Your task to perform on an android device: turn on sleep mode Image 0: 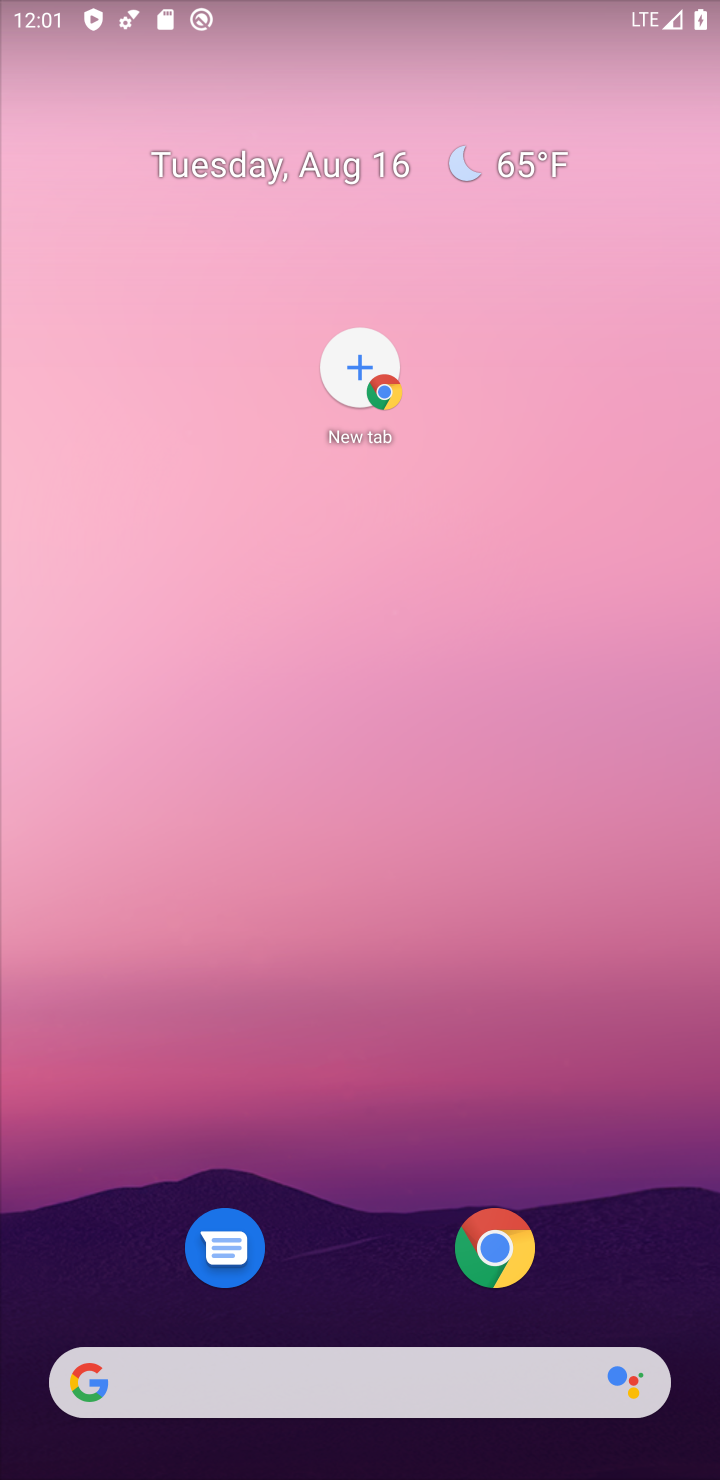
Step 0: drag from (403, 1329) to (308, 107)
Your task to perform on an android device: turn on sleep mode Image 1: 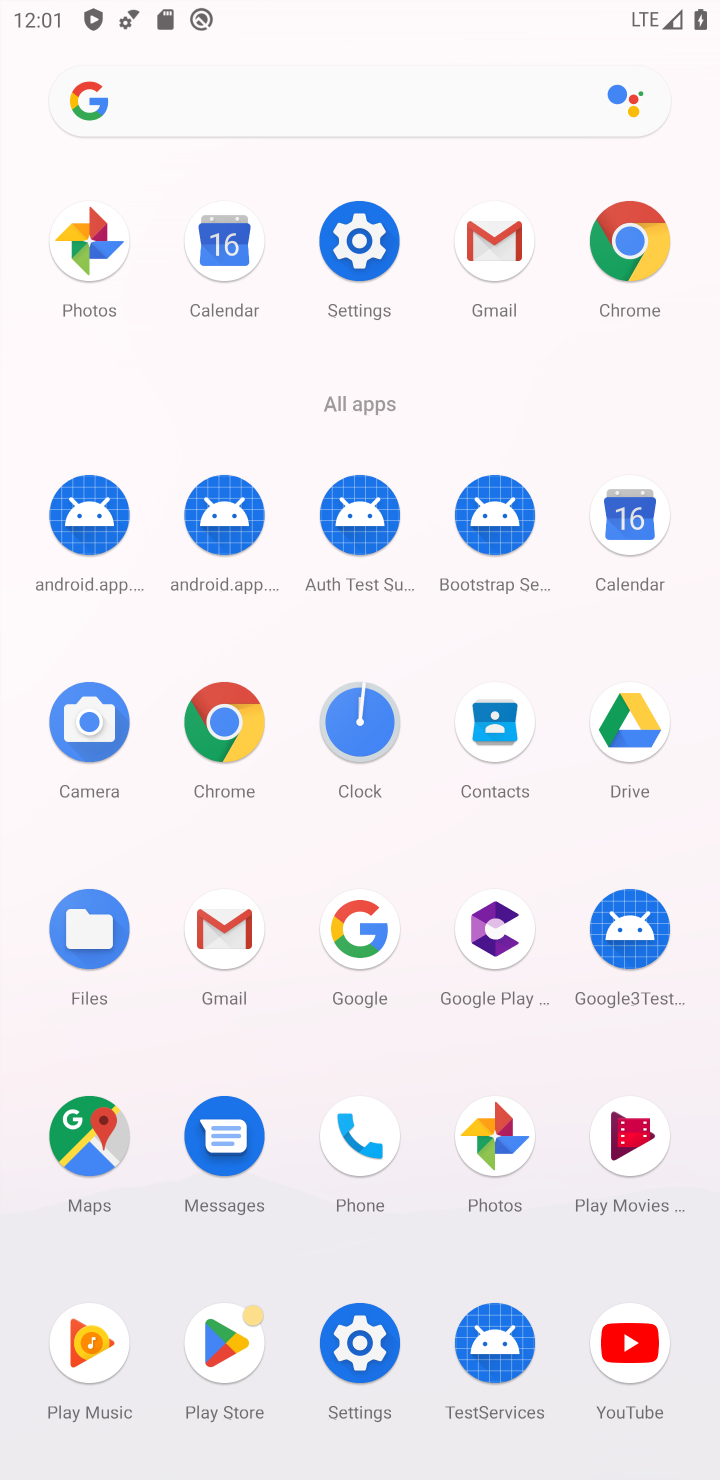
Step 1: click (365, 222)
Your task to perform on an android device: turn on sleep mode Image 2: 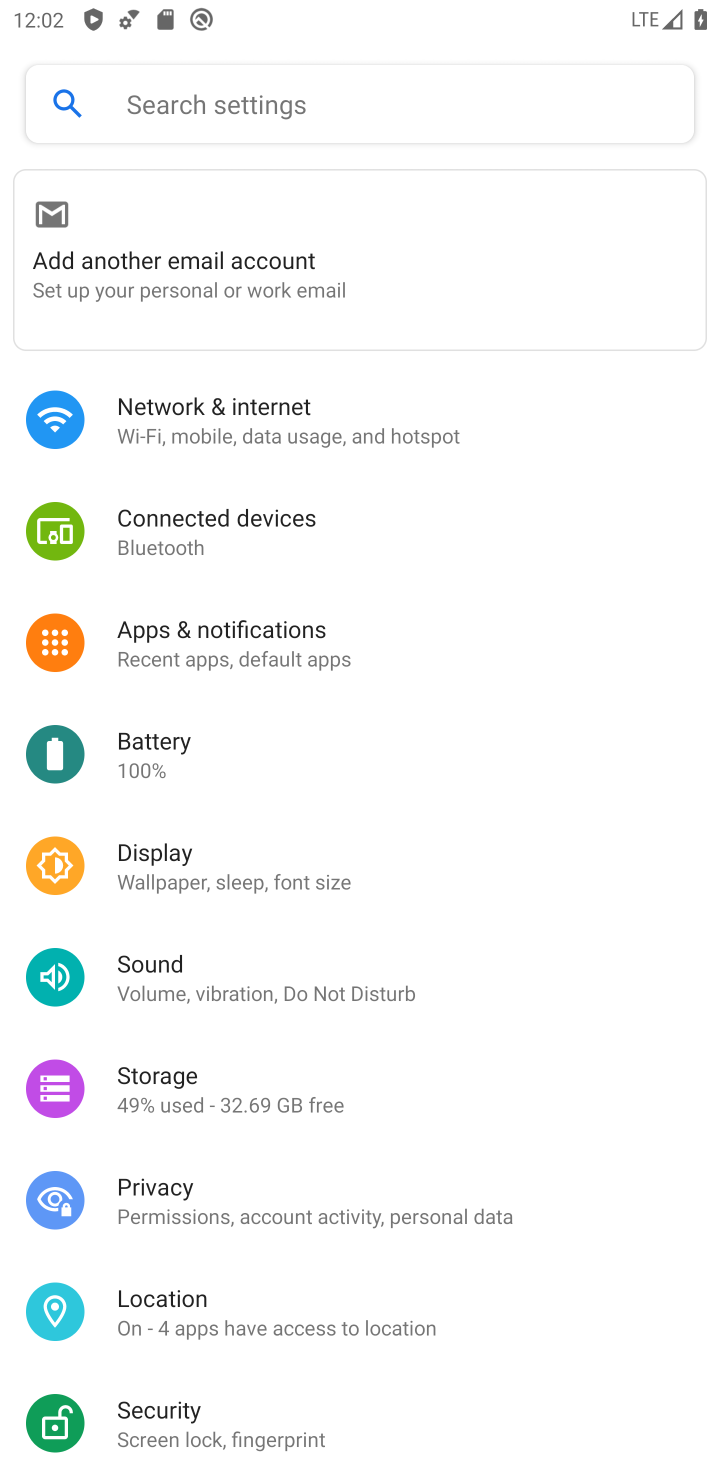
Step 2: click (336, 915)
Your task to perform on an android device: turn on sleep mode Image 3: 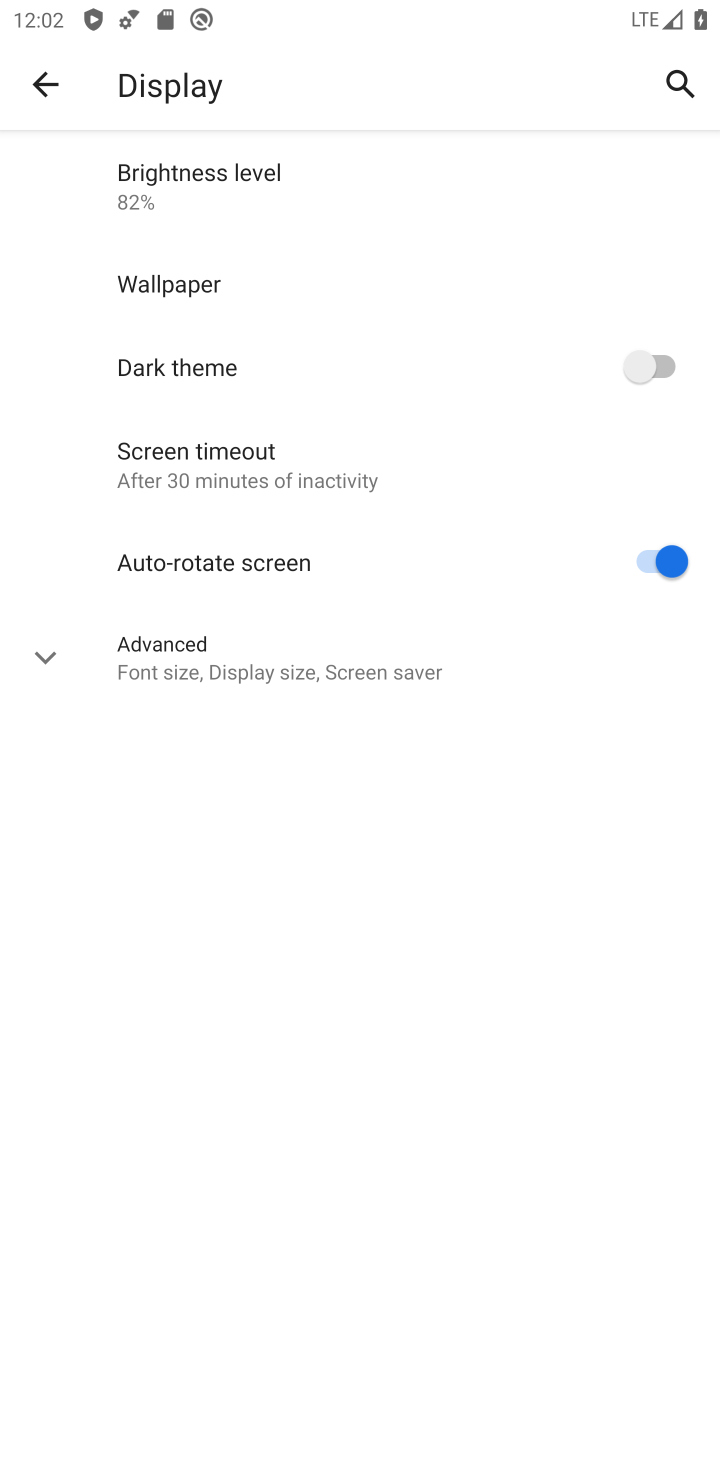
Step 3: click (333, 528)
Your task to perform on an android device: turn on sleep mode Image 4: 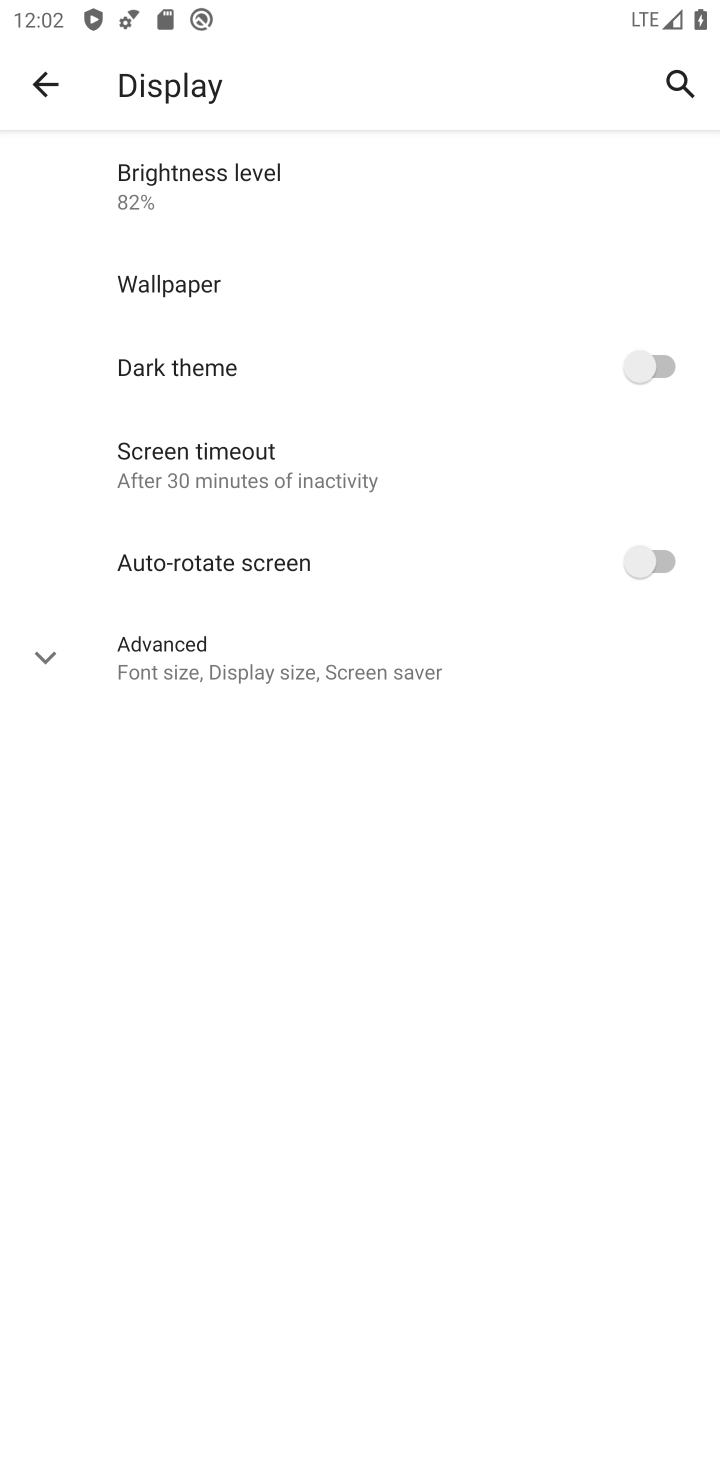
Step 4: task complete